Your task to perform on an android device: Open the calendar app, open the side menu, and click the "Day" option Image 0: 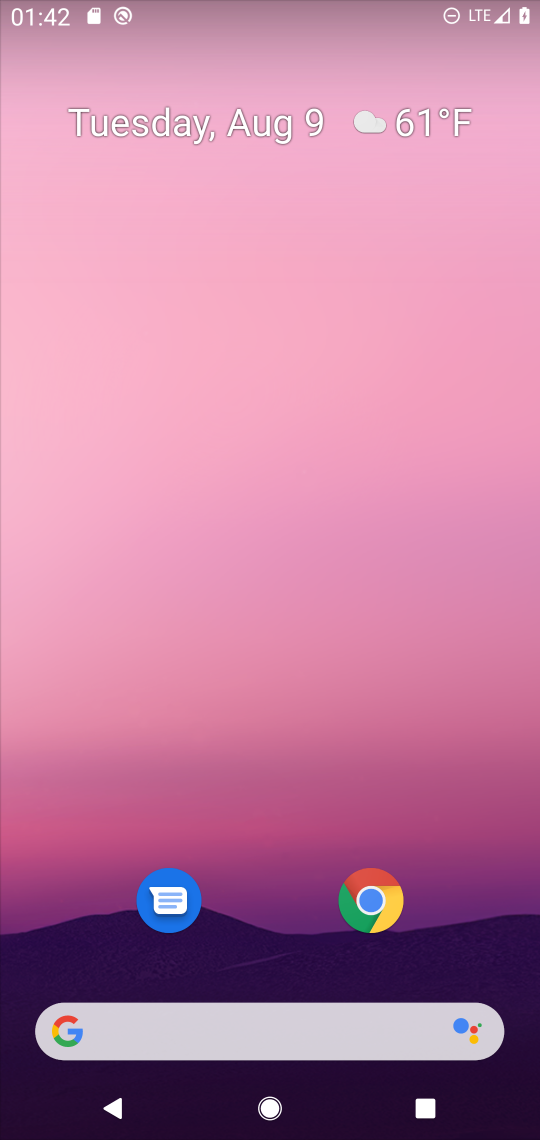
Step 0: press home button
Your task to perform on an android device: Open the calendar app, open the side menu, and click the "Day" option Image 1: 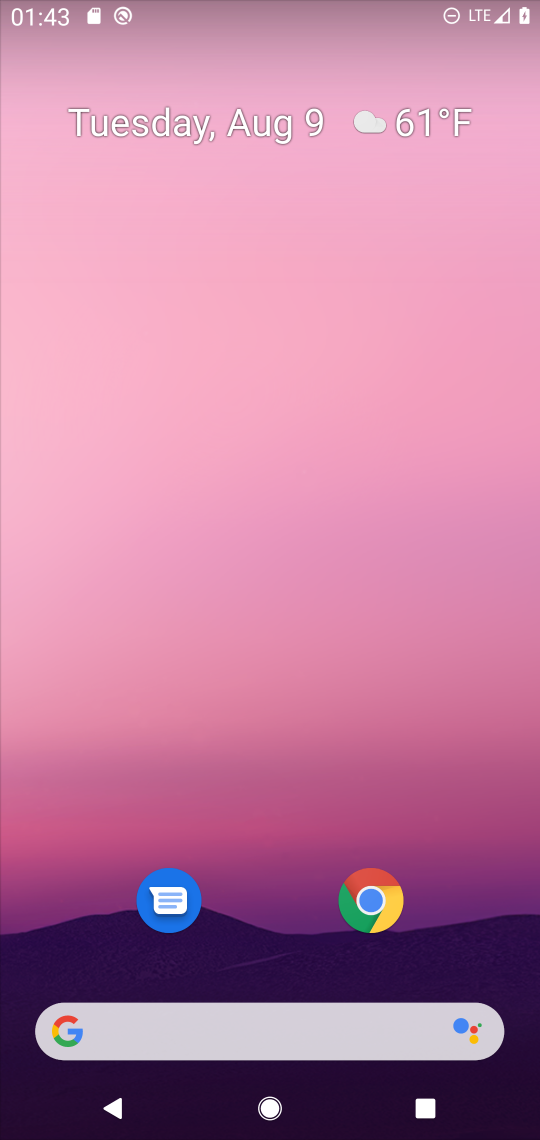
Step 1: drag from (286, 878) to (379, 301)
Your task to perform on an android device: Open the calendar app, open the side menu, and click the "Day" option Image 2: 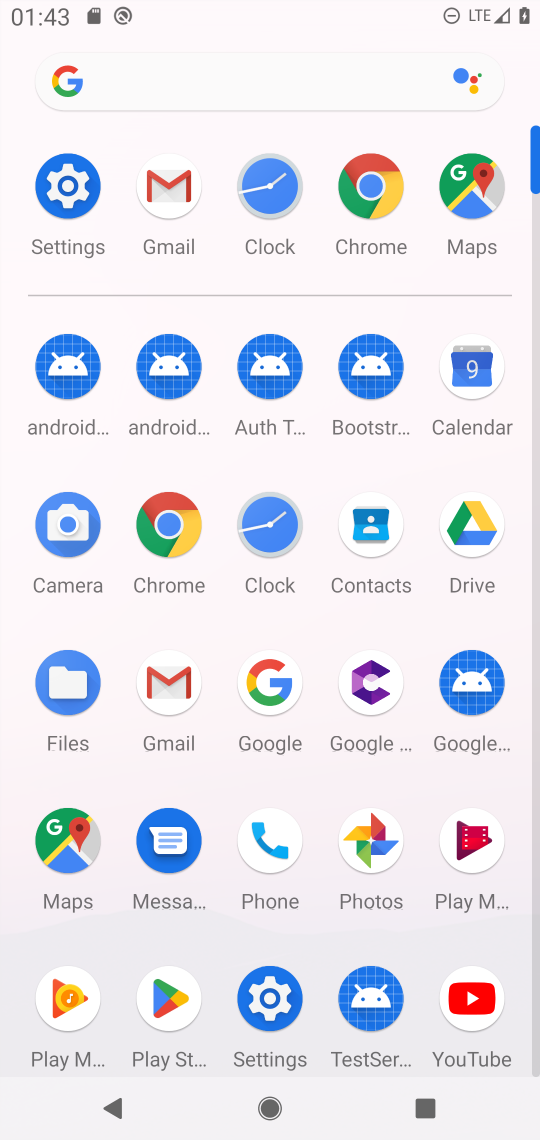
Step 2: click (479, 377)
Your task to perform on an android device: Open the calendar app, open the side menu, and click the "Day" option Image 3: 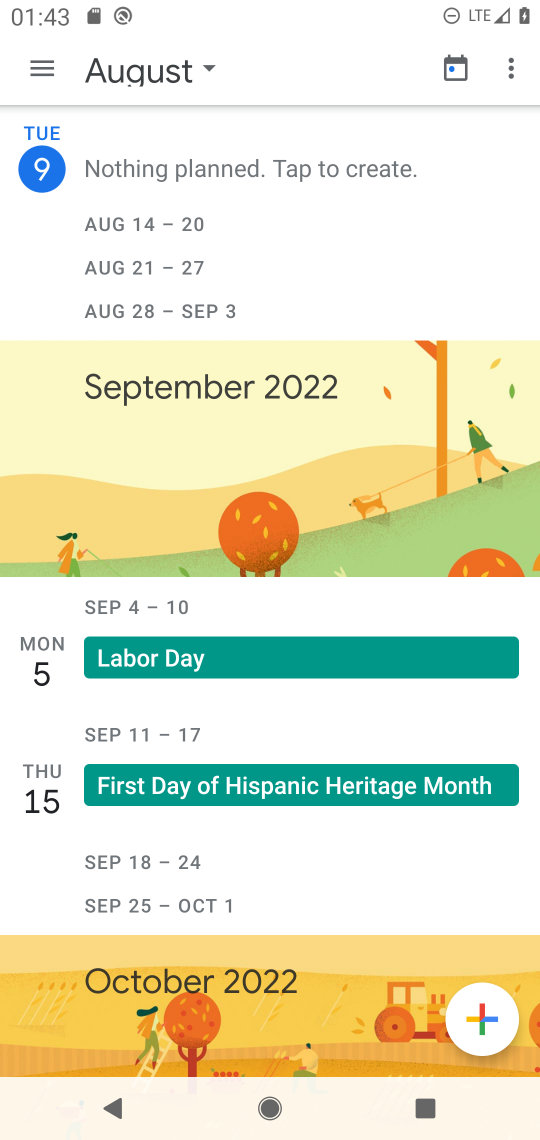
Step 3: click (36, 63)
Your task to perform on an android device: Open the calendar app, open the side menu, and click the "Day" option Image 4: 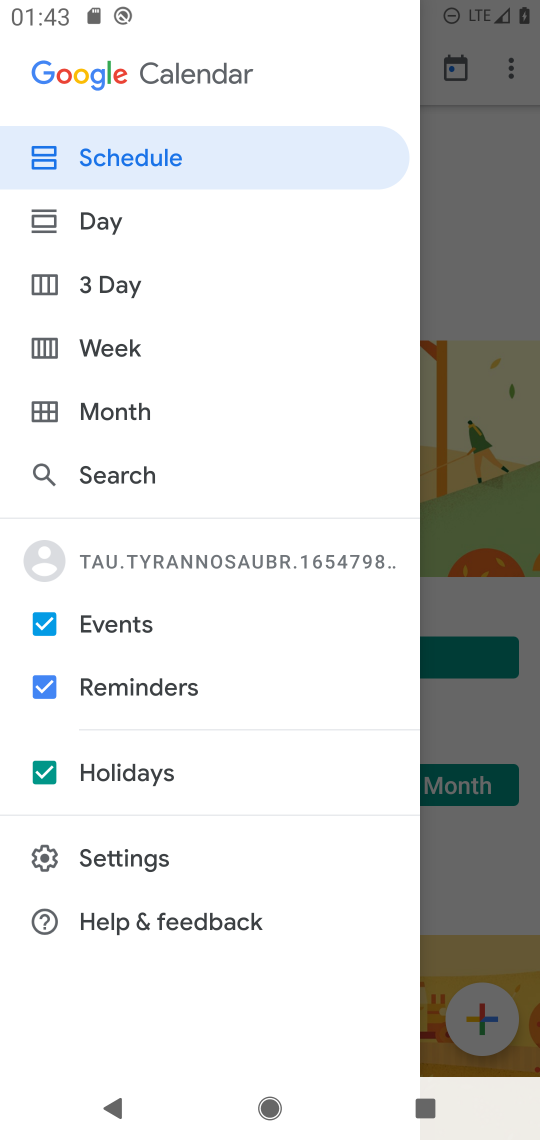
Step 4: click (107, 231)
Your task to perform on an android device: Open the calendar app, open the side menu, and click the "Day" option Image 5: 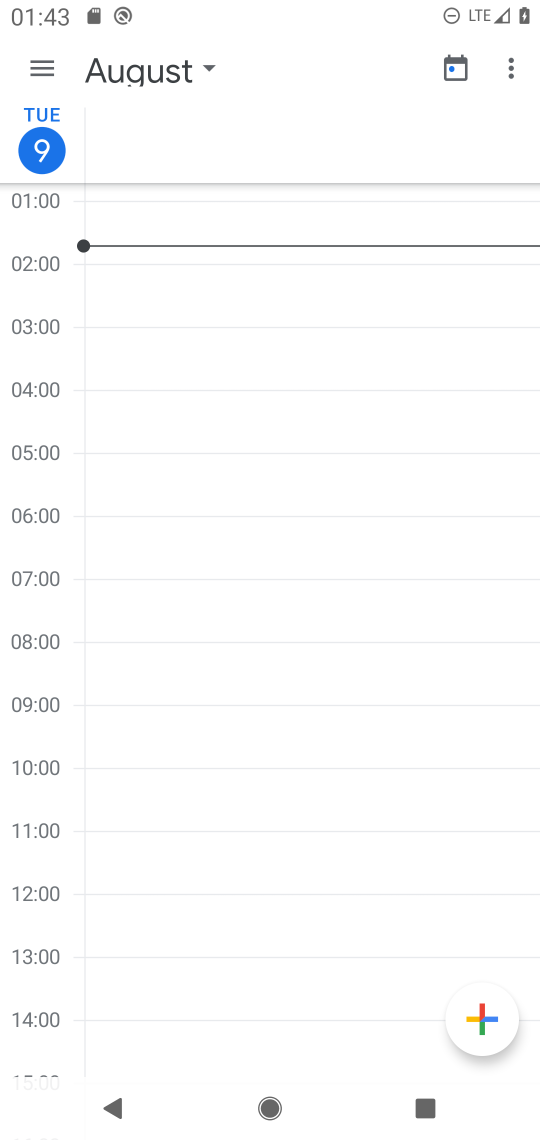
Step 5: task complete